Your task to perform on an android device: Add "bose soundlink mini" to the cart on target, then select checkout. Image 0: 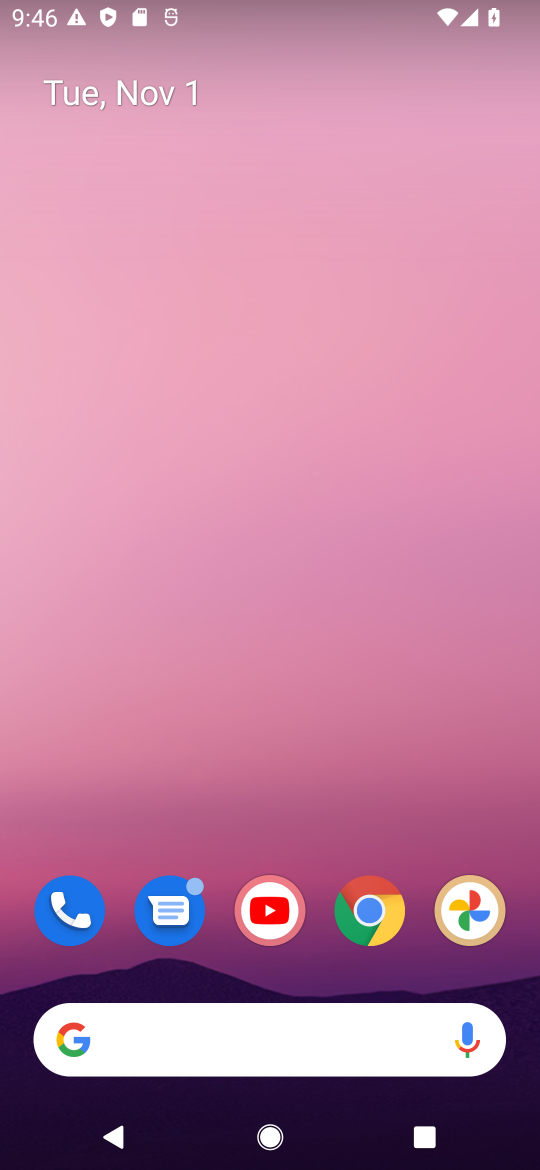
Step 0: click (371, 915)
Your task to perform on an android device: Add "bose soundlink mini" to the cart on target, then select checkout. Image 1: 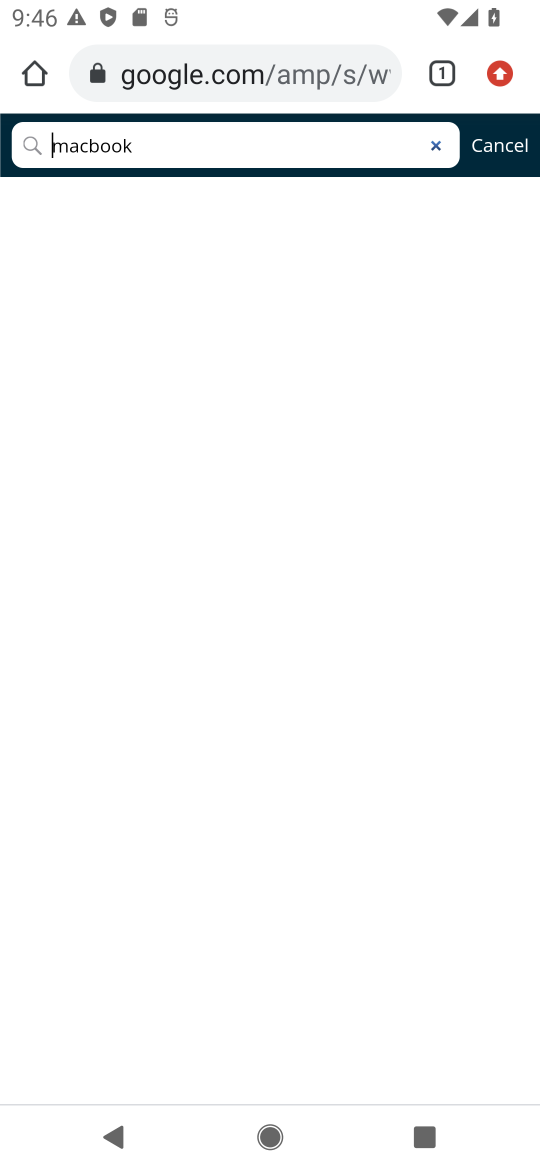
Step 1: click (232, 78)
Your task to perform on an android device: Add "bose soundlink mini" to the cart on target, then select checkout. Image 2: 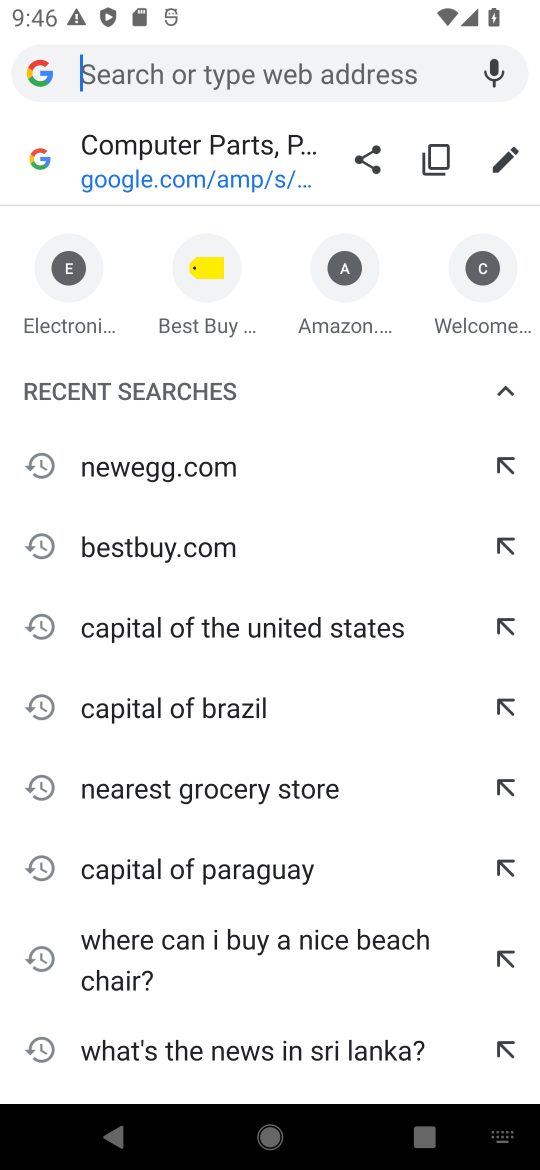
Step 2: type "target.com"
Your task to perform on an android device: Add "bose soundlink mini" to the cart on target, then select checkout. Image 3: 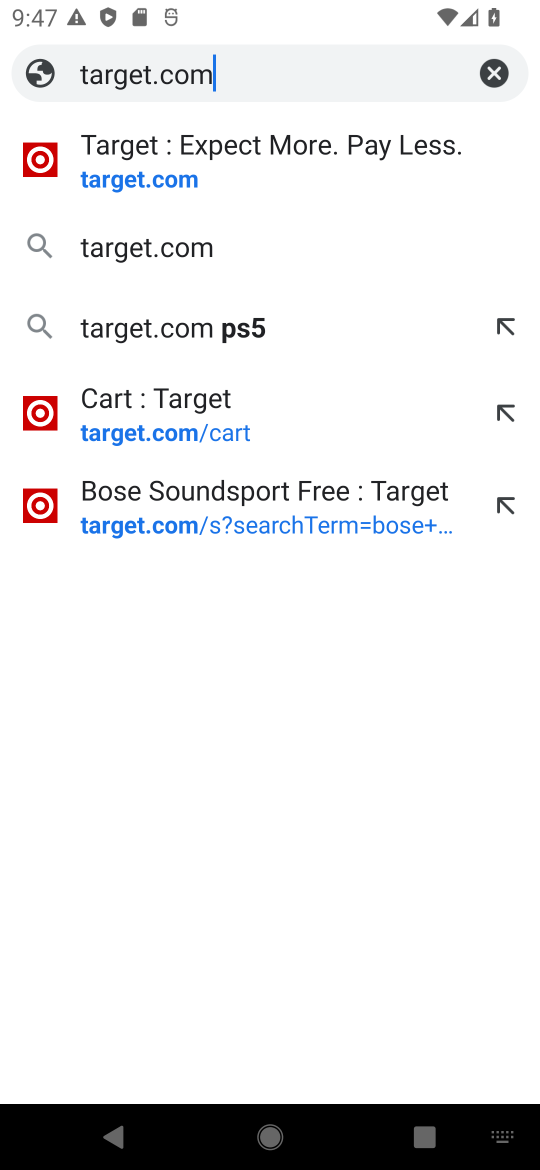
Step 3: click (130, 188)
Your task to perform on an android device: Add "bose soundlink mini" to the cart on target, then select checkout. Image 4: 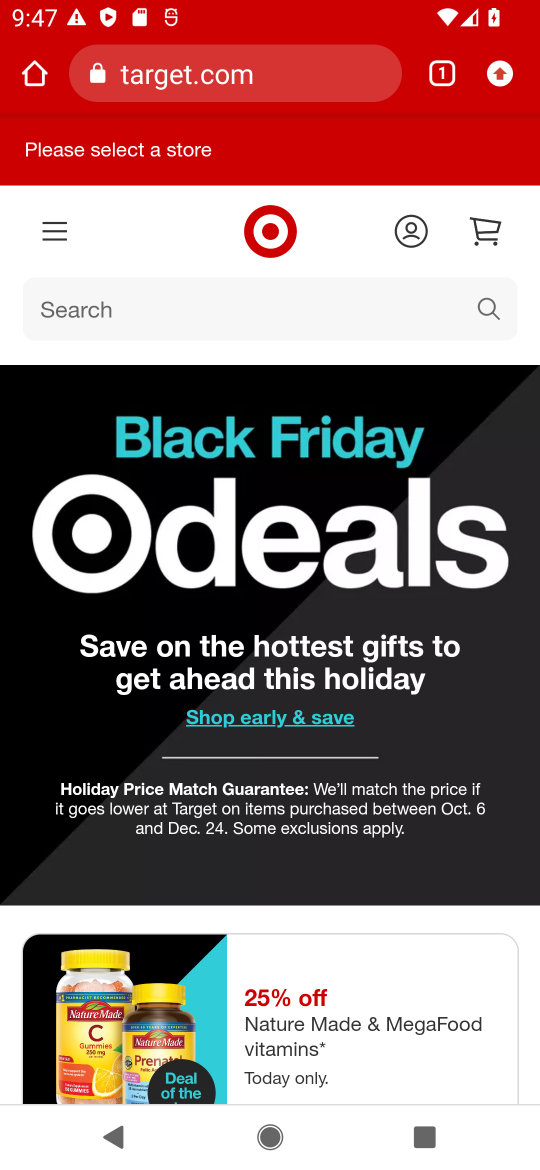
Step 4: click (174, 305)
Your task to perform on an android device: Add "bose soundlink mini" to the cart on target, then select checkout. Image 5: 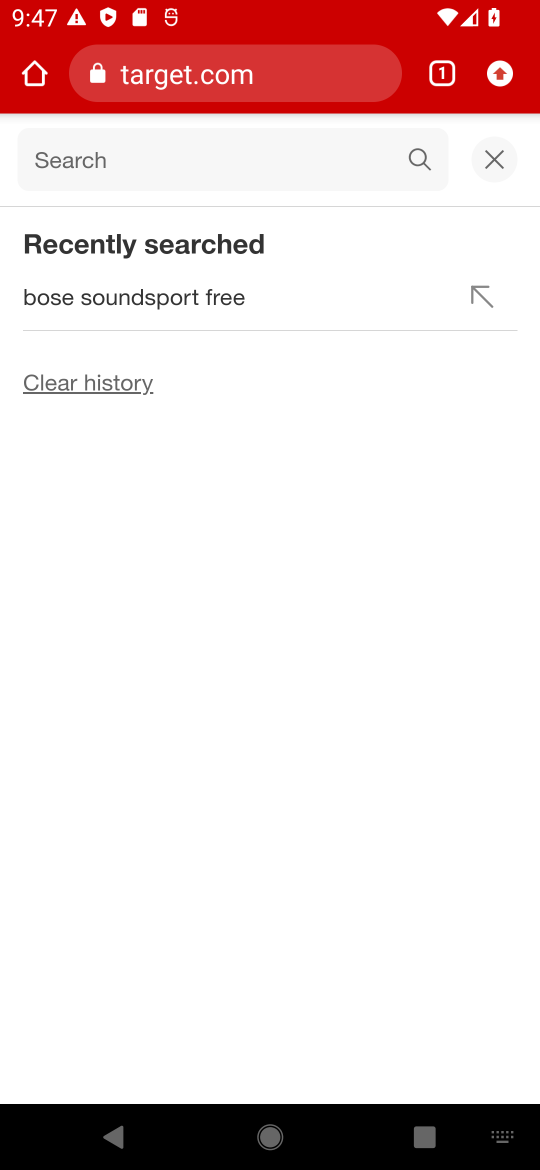
Step 5: type "bose soundlink mini"
Your task to perform on an android device: Add "bose soundlink mini" to the cart on target, then select checkout. Image 6: 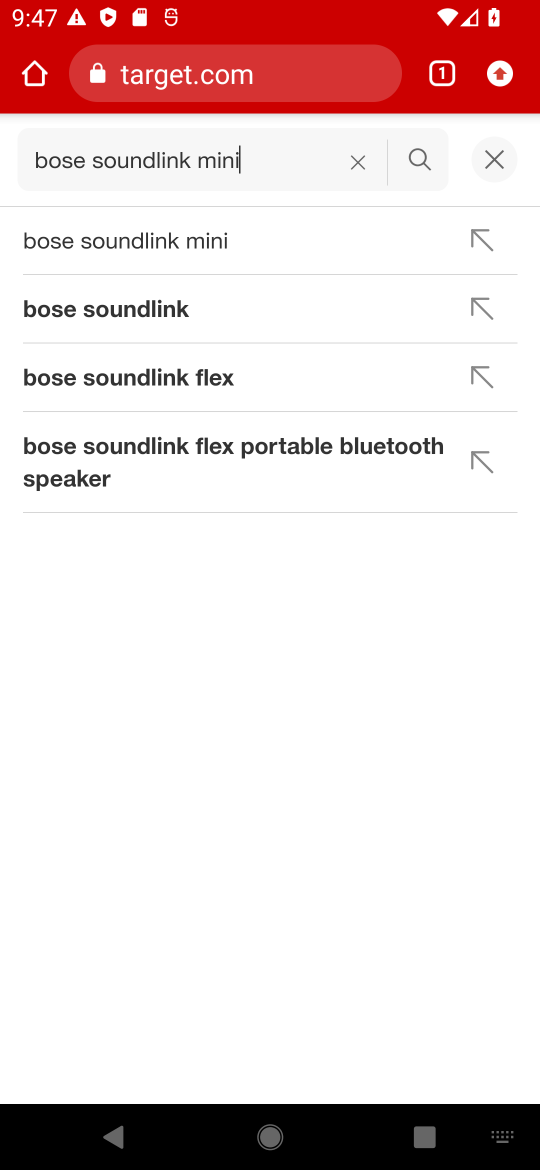
Step 6: click (189, 242)
Your task to perform on an android device: Add "bose soundlink mini" to the cart on target, then select checkout. Image 7: 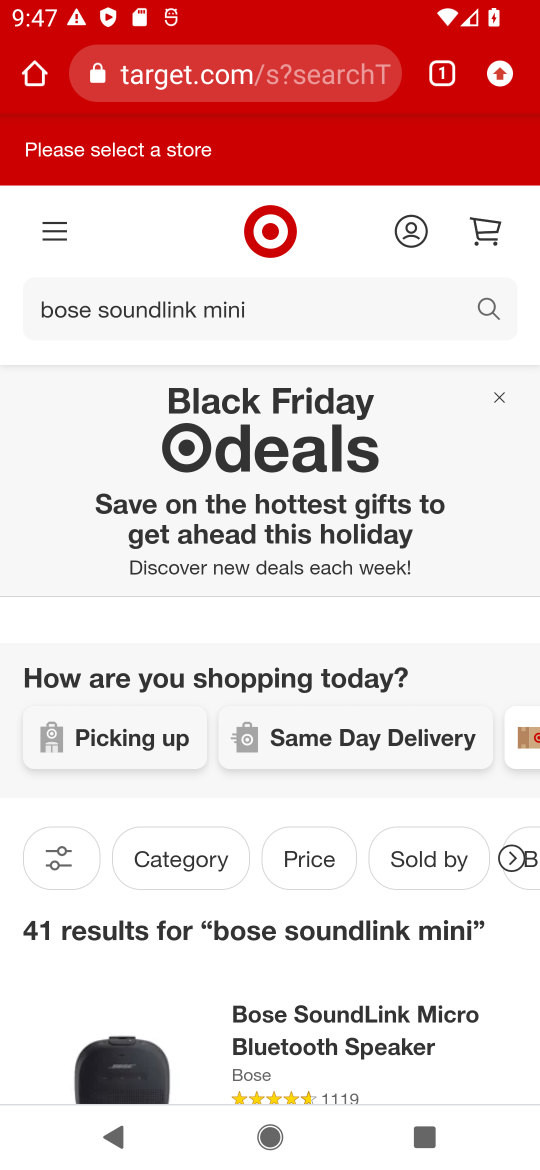
Step 7: task complete